Your task to perform on an android device: Search for seafood restaurants on Google Maps Image 0: 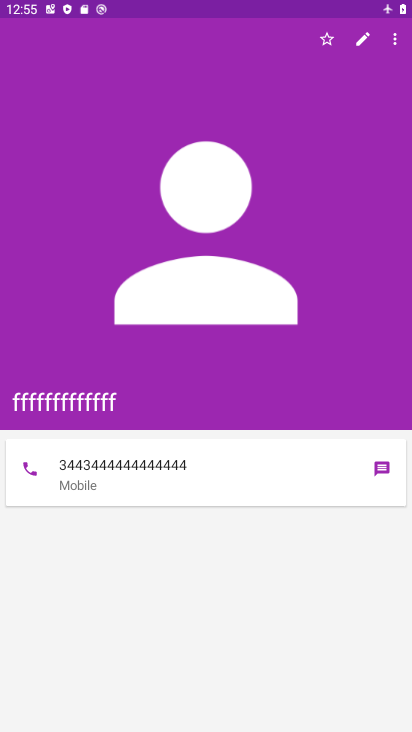
Step 0: press home button
Your task to perform on an android device: Search for seafood restaurants on Google Maps Image 1: 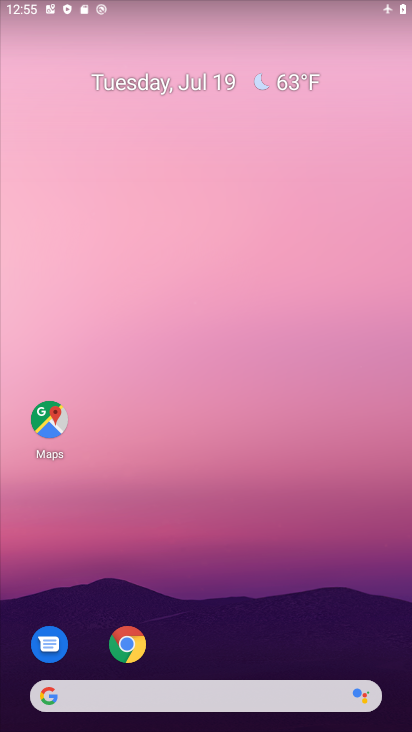
Step 1: drag from (218, 731) to (212, 169)
Your task to perform on an android device: Search for seafood restaurants on Google Maps Image 2: 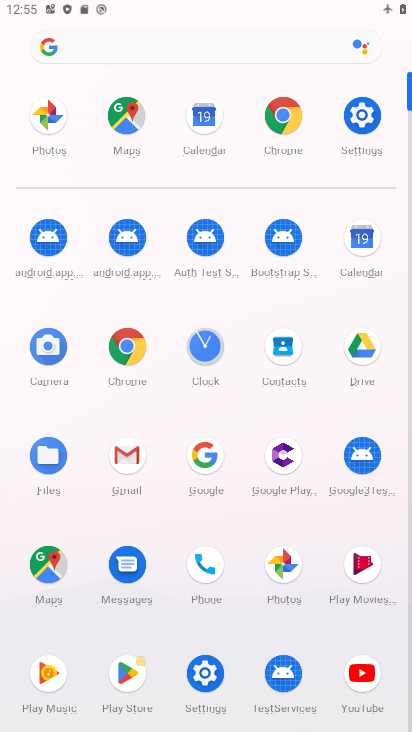
Step 2: click (45, 567)
Your task to perform on an android device: Search for seafood restaurants on Google Maps Image 3: 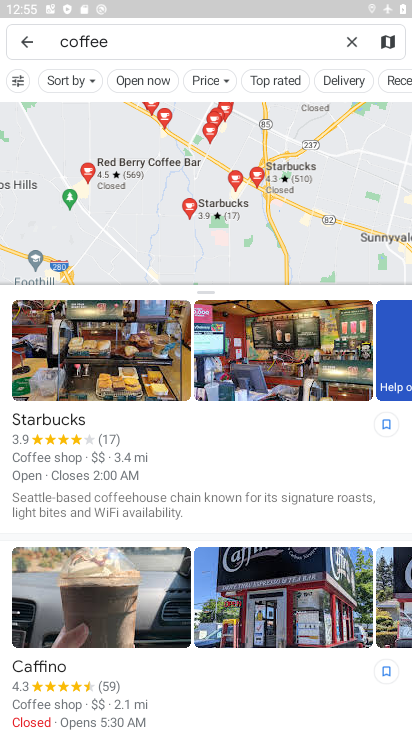
Step 3: click (353, 38)
Your task to perform on an android device: Search for seafood restaurants on Google Maps Image 4: 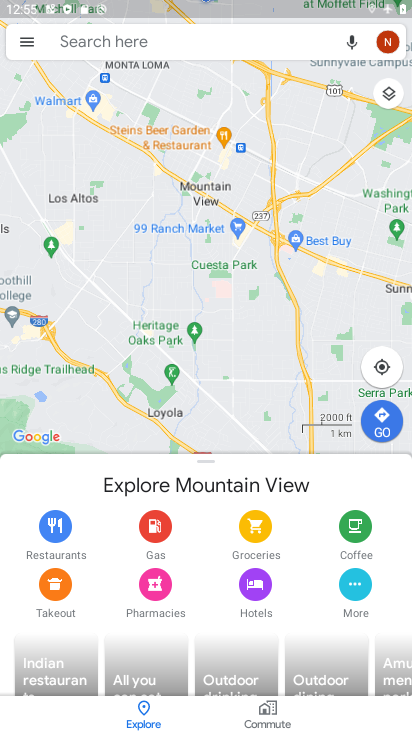
Step 4: click (208, 48)
Your task to perform on an android device: Search for seafood restaurants on Google Maps Image 5: 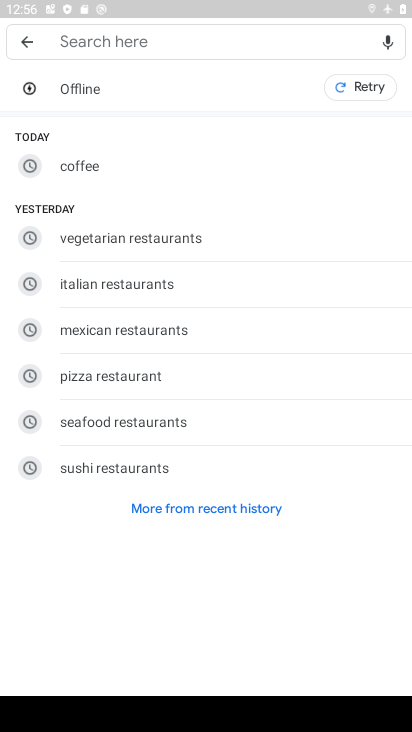
Step 5: type "seafood restaurants"
Your task to perform on an android device: Search for seafood restaurants on Google Maps Image 6: 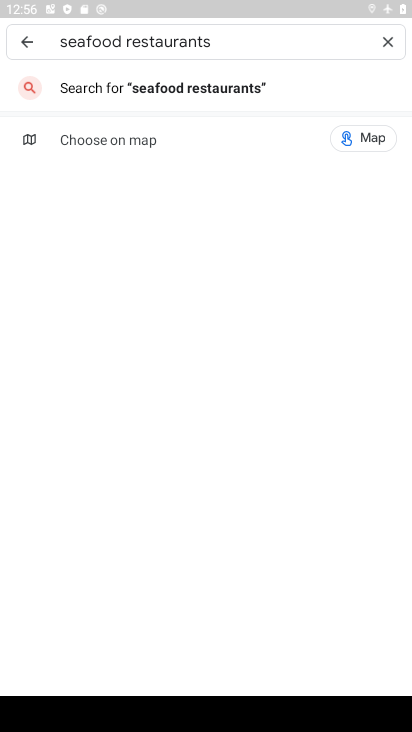
Step 6: click (196, 90)
Your task to perform on an android device: Search for seafood restaurants on Google Maps Image 7: 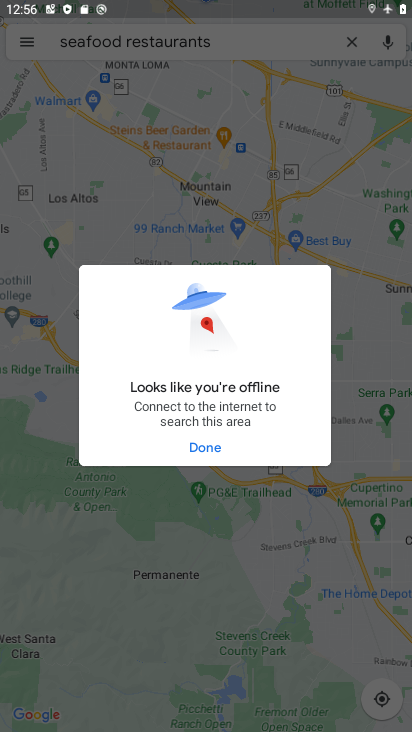
Step 7: task complete